Your task to perform on an android device: Go to Android settings Image 0: 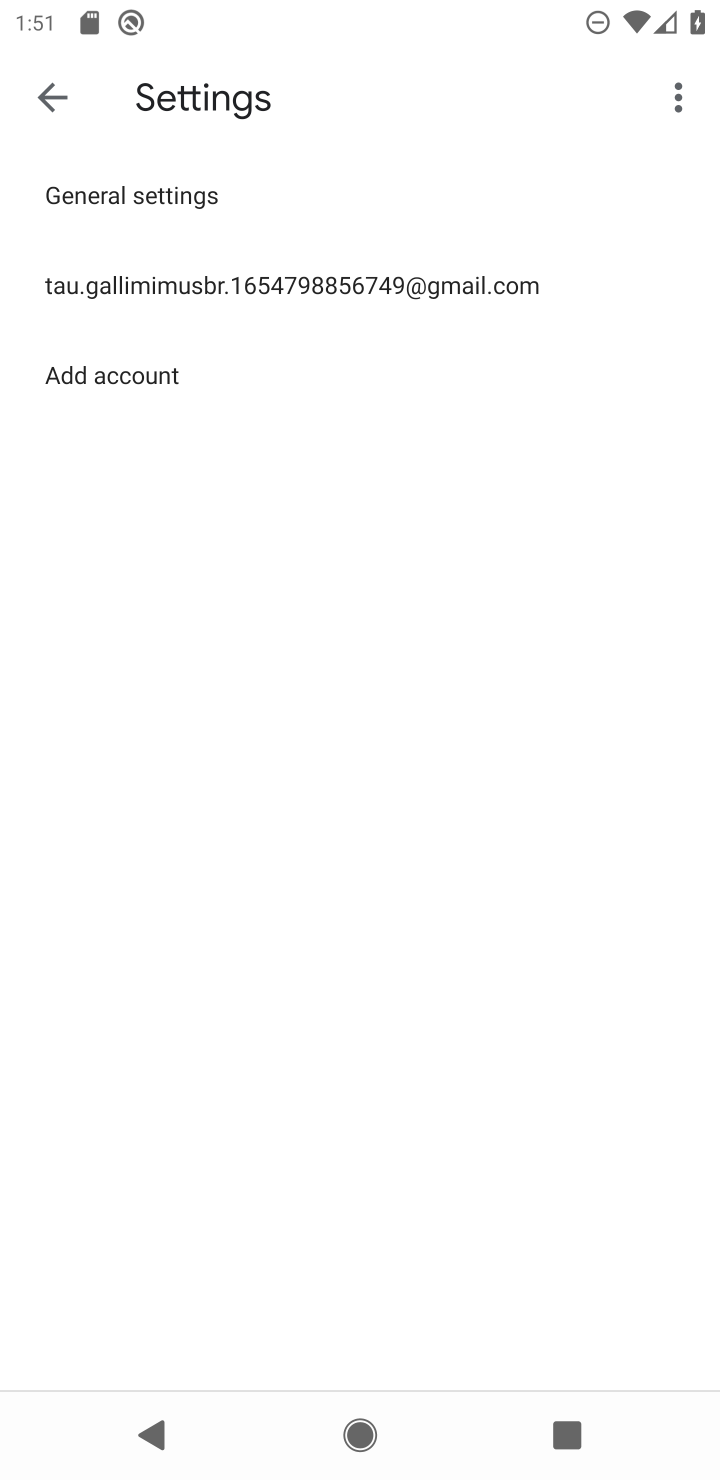
Step 0: press home button
Your task to perform on an android device: Go to Android settings Image 1: 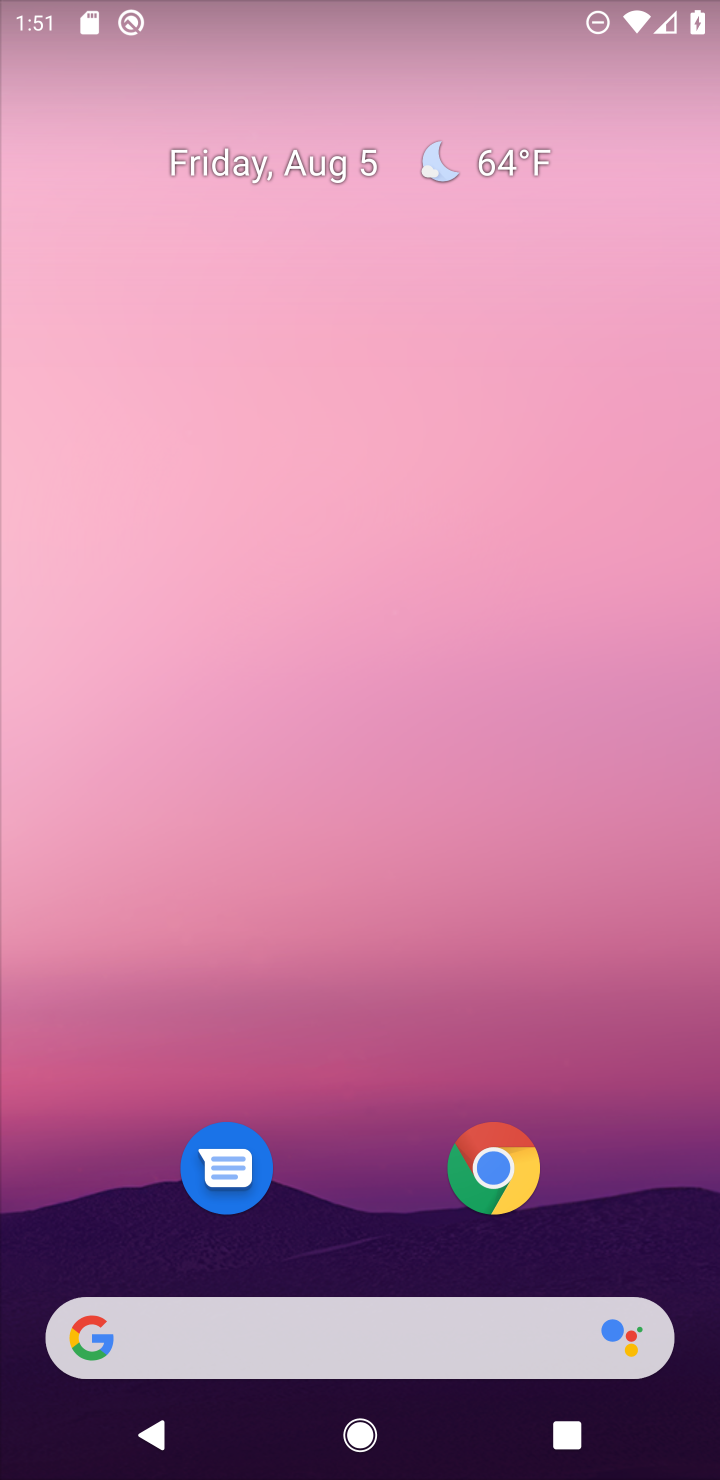
Step 1: drag from (669, 1184) to (263, 20)
Your task to perform on an android device: Go to Android settings Image 2: 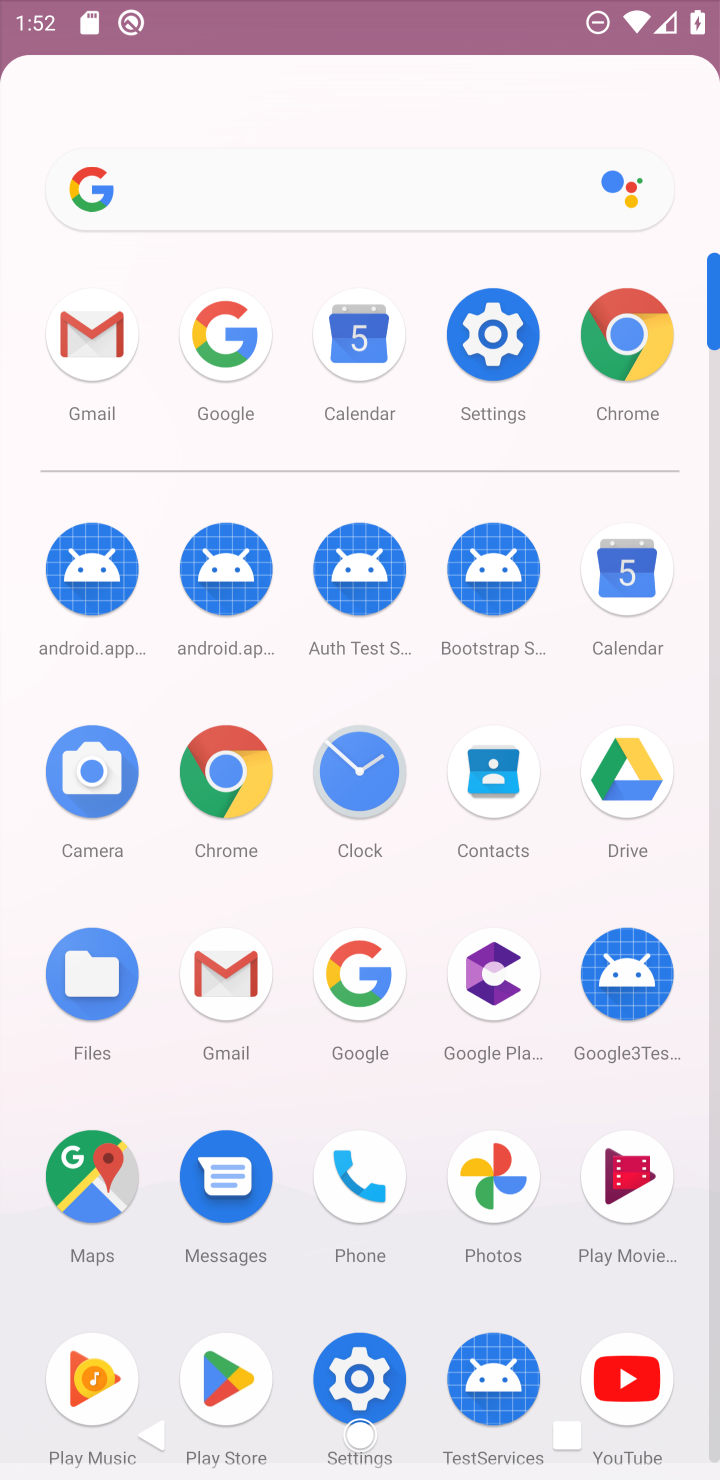
Step 2: click (455, 344)
Your task to perform on an android device: Go to Android settings Image 3: 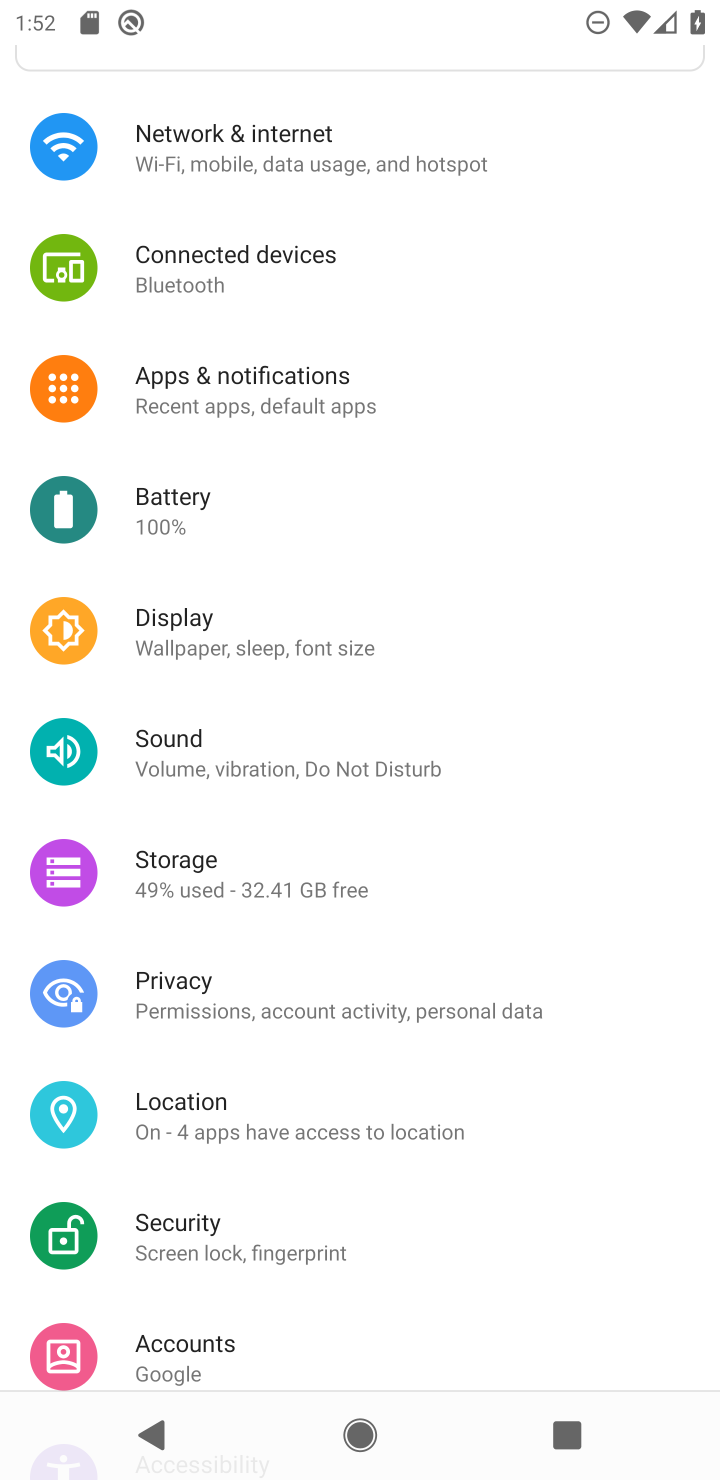
Step 3: task complete